Your task to perform on an android device: create a new album in the google photos Image 0: 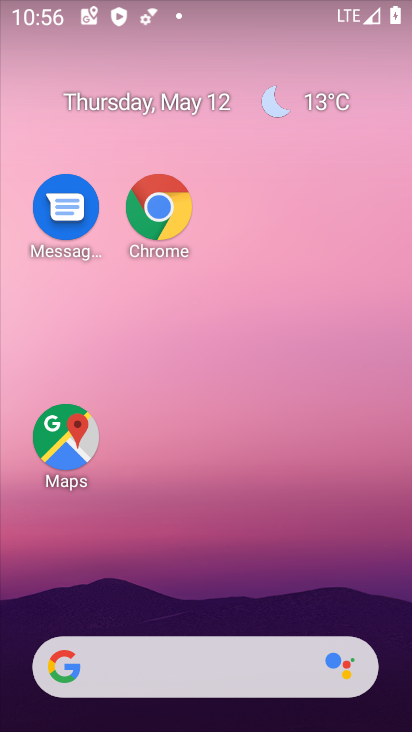
Step 0: drag from (212, 617) to (196, 62)
Your task to perform on an android device: create a new album in the google photos Image 1: 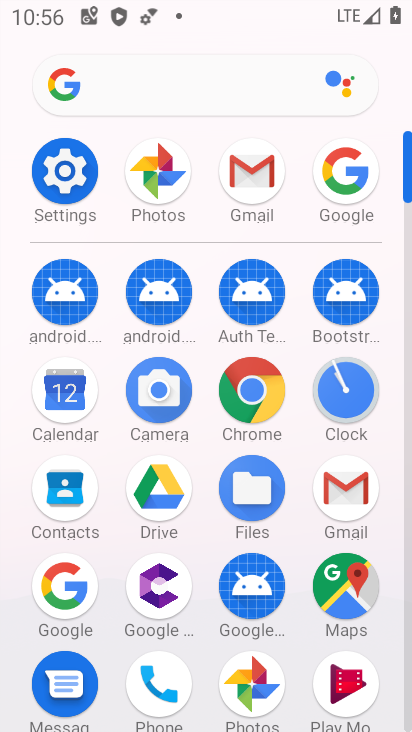
Step 1: click (231, 680)
Your task to perform on an android device: create a new album in the google photos Image 2: 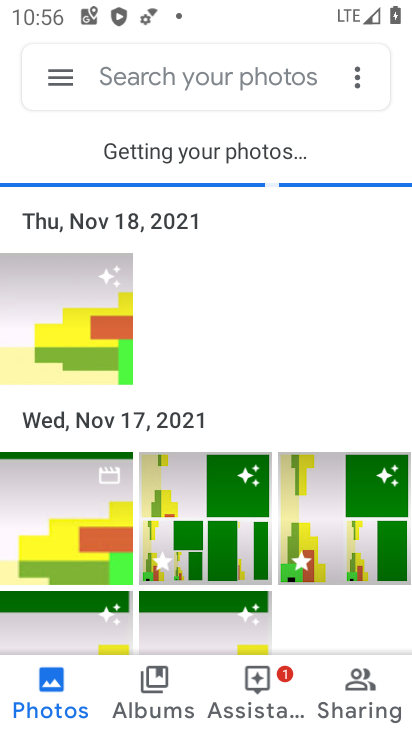
Step 2: click (61, 307)
Your task to perform on an android device: create a new album in the google photos Image 3: 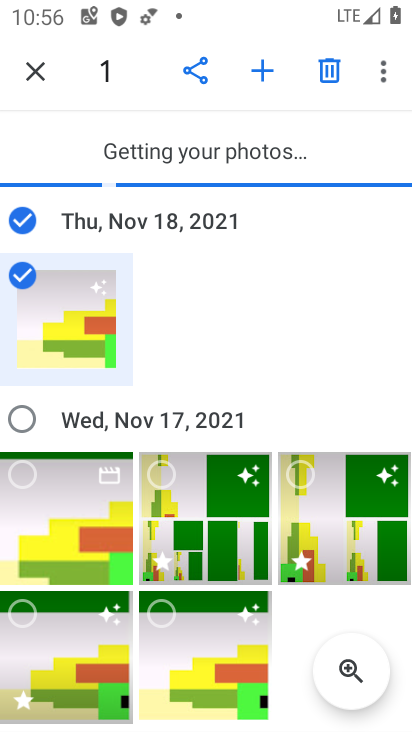
Step 3: click (258, 63)
Your task to perform on an android device: create a new album in the google photos Image 4: 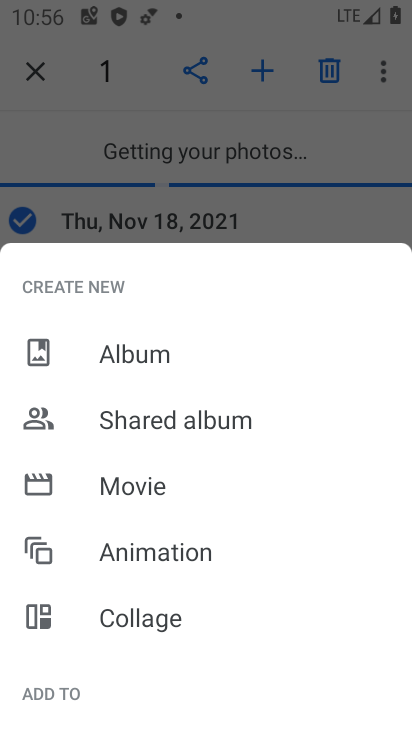
Step 4: click (176, 357)
Your task to perform on an android device: create a new album in the google photos Image 5: 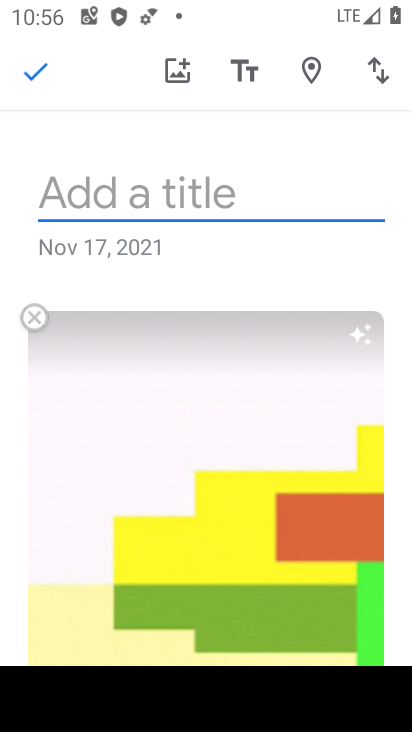
Step 5: type "ji"
Your task to perform on an android device: create a new album in the google photos Image 6: 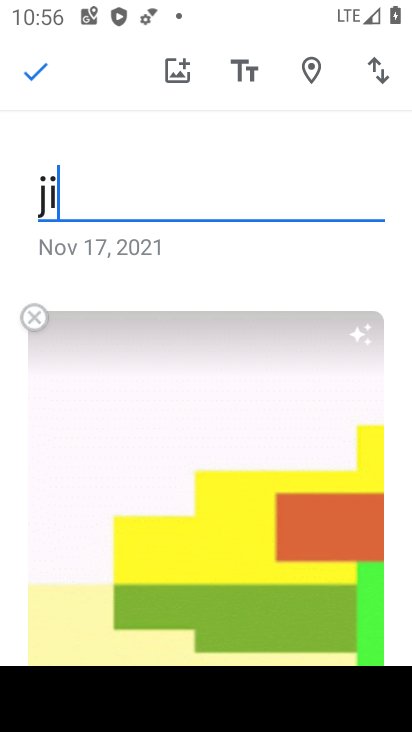
Step 6: click (42, 64)
Your task to perform on an android device: create a new album in the google photos Image 7: 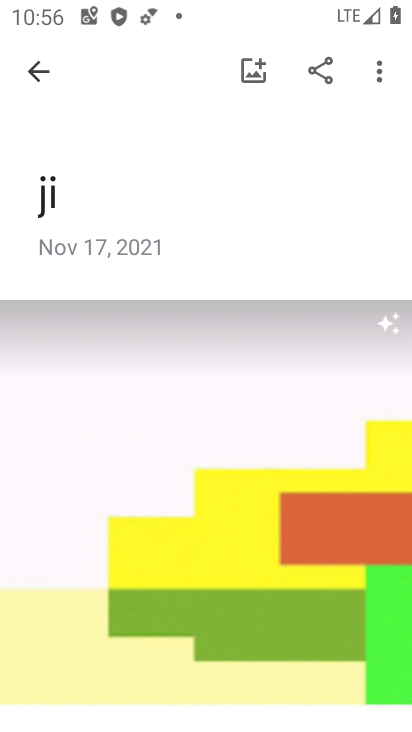
Step 7: task complete